Your task to perform on an android device: turn on javascript in the chrome app Image 0: 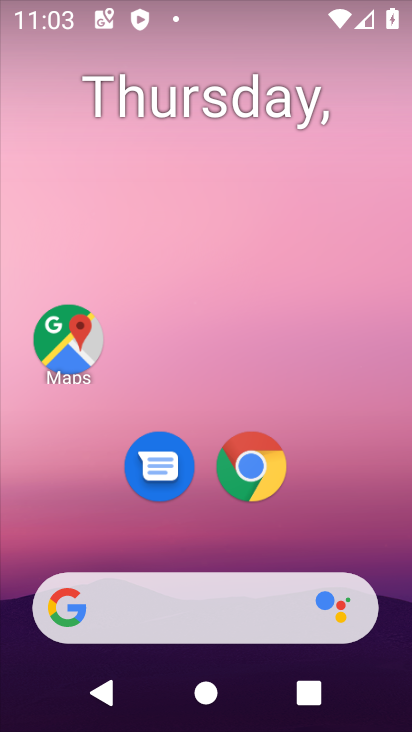
Step 0: click (255, 475)
Your task to perform on an android device: turn on javascript in the chrome app Image 1: 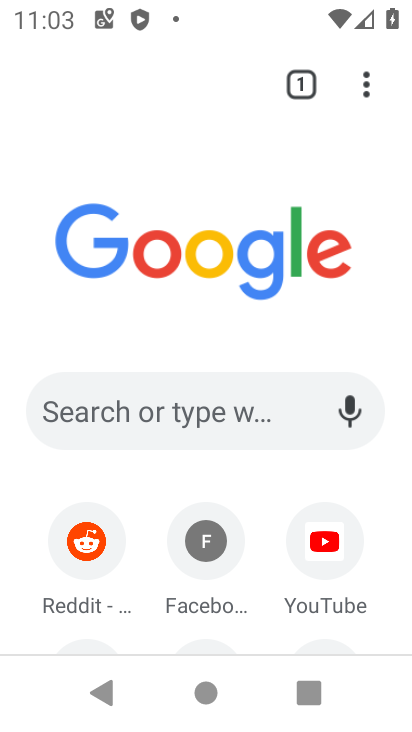
Step 1: click (372, 92)
Your task to perform on an android device: turn on javascript in the chrome app Image 2: 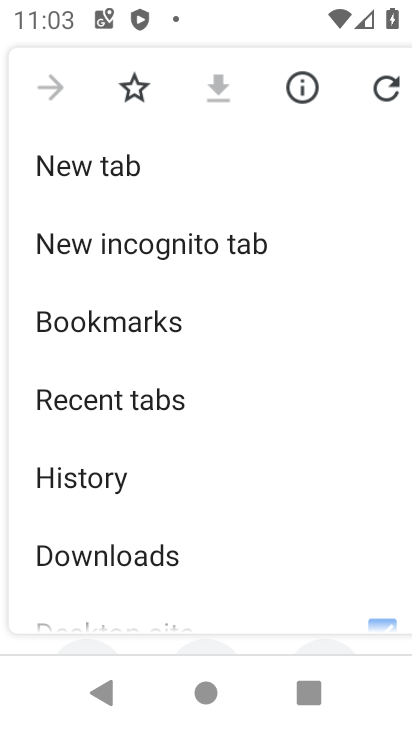
Step 2: drag from (174, 548) to (174, 175)
Your task to perform on an android device: turn on javascript in the chrome app Image 3: 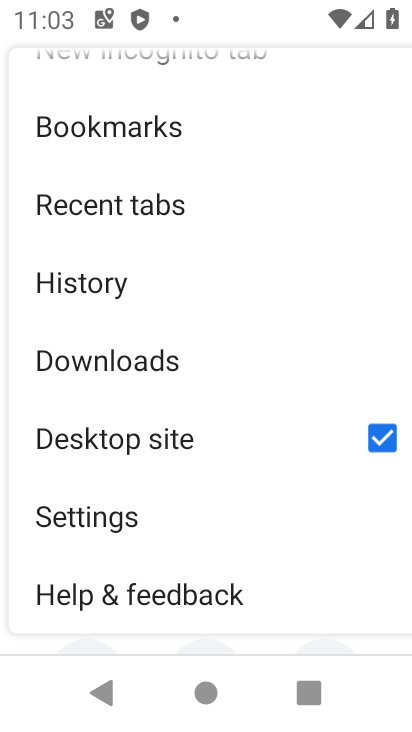
Step 3: click (102, 505)
Your task to perform on an android device: turn on javascript in the chrome app Image 4: 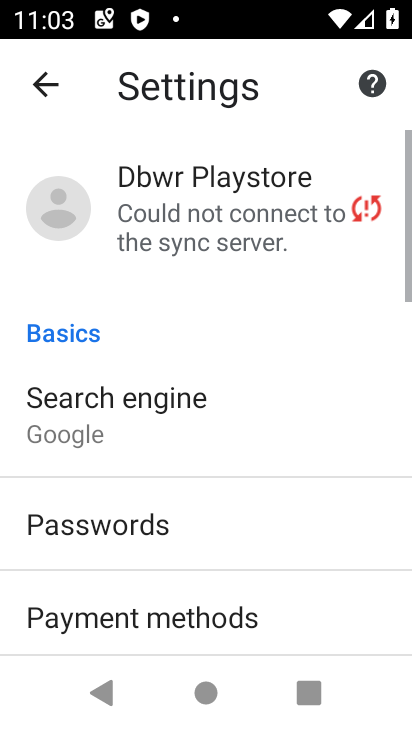
Step 4: drag from (161, 537) to (155, 117)
Your task to perform on an android device: turn on javascript in the chrome app Image 5: 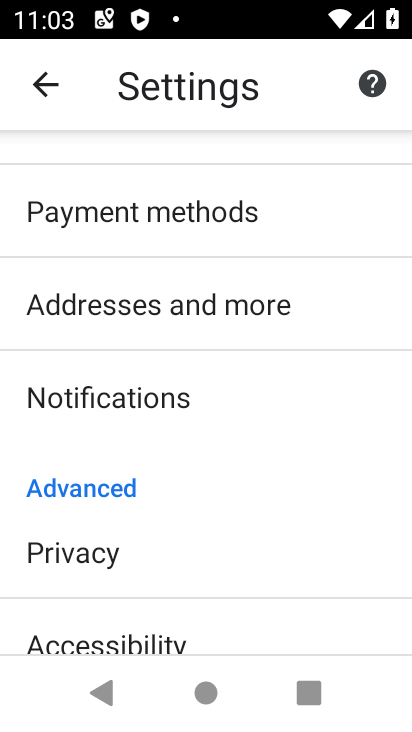
Step 5: drag from (160, 596) to (101, 201)
Your task to perform on an android device: turn on javascript in the chrome app Image 6: 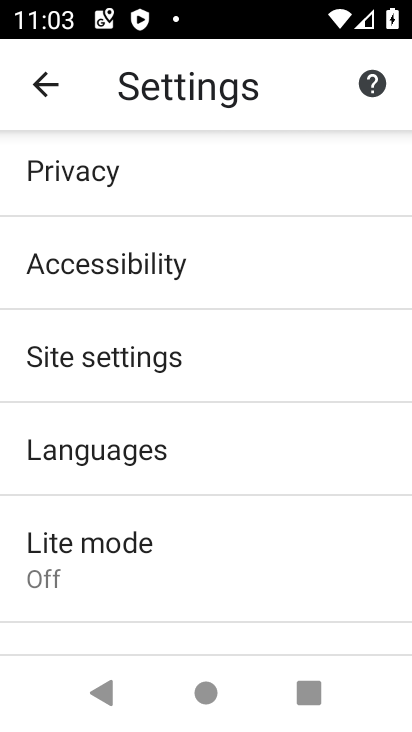
Step 6: click (126, 358)
Your task to perform on an android device: turn on javascript in the chrome app Image 7: 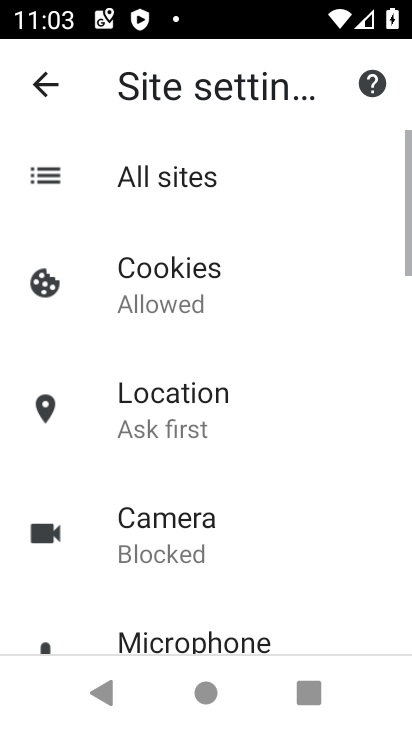
Step 7: drag from (181, 533) to (137, 170)
Your task to perform on an android device: turn on javascript in the chrome app Image 8: 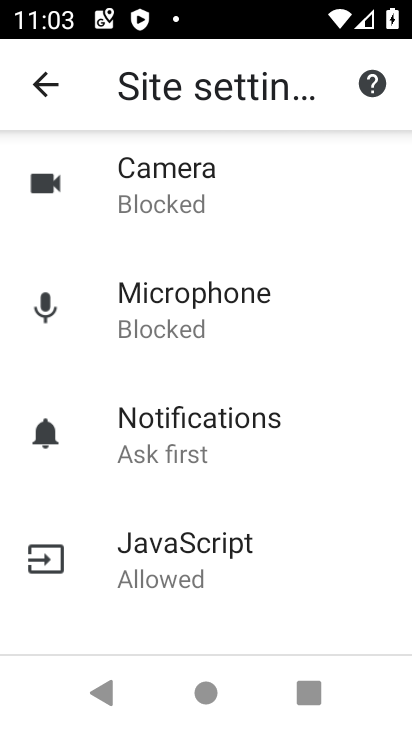
Step 8: click (188, 526)
Your task to perform on an android device: turn on javascript in the chrome app Image 9: 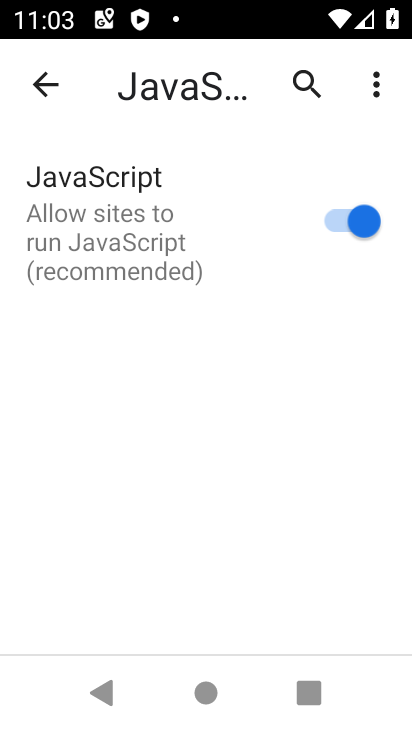
Step 9: task complete